Your task to perform on an android device: turn off smart reply in the gmail app Image 0: 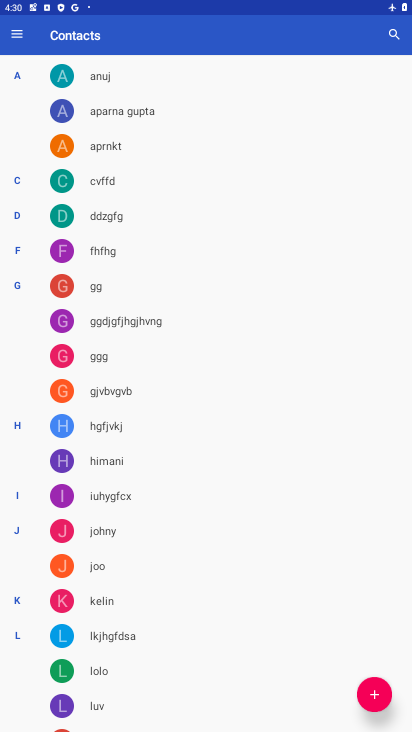
Step 0: press home button
Your task to perform on an android device: turn off smart reply in the gmail app Image 1: 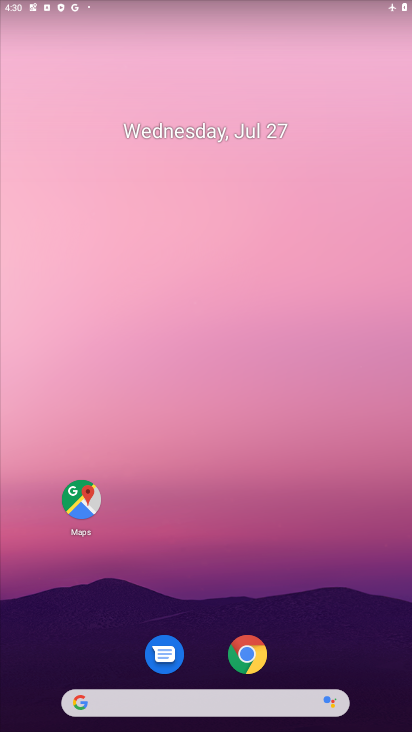
Step 1: drag from (192, 669) to (290, 328)
Your task to perform on an android device: turn off smart reply in the gmail app Image 2: 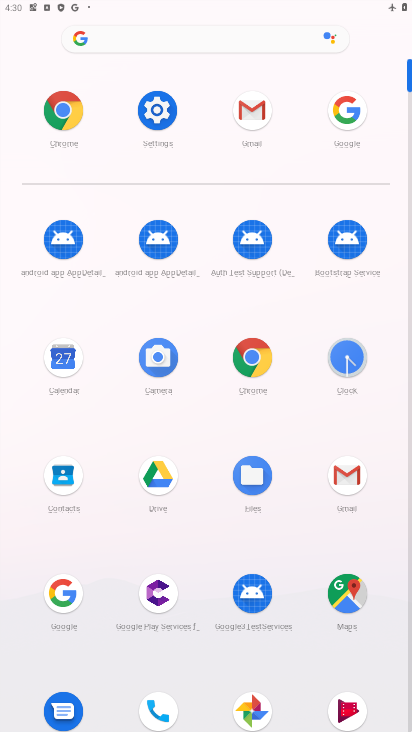
Step 2: click (249, 125)
Your task to perform on an android device: turn off smart reply in the gmail app Image 3: 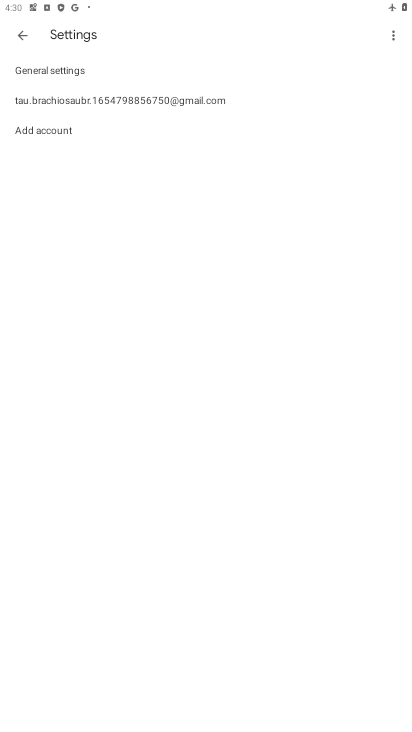
Step 3: click (70, 95)
Your task to perform on an android device: turn off smart reply in the gmail app Image 4: 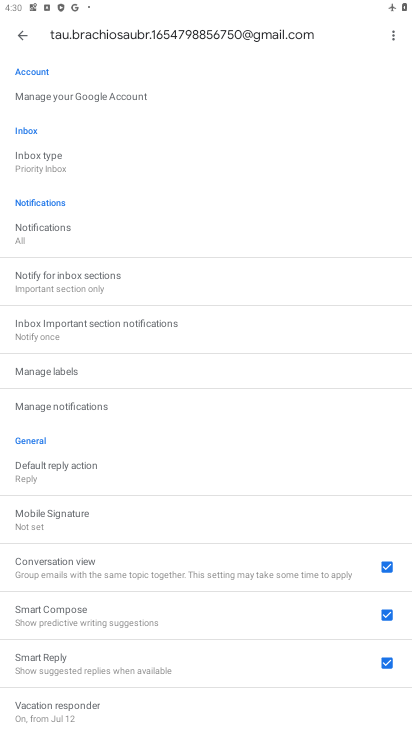
Step 4: drag from (157, 681) to (249, 306)
Your task to perform on an android device: turn off smart reply in the gmail app Image 5: 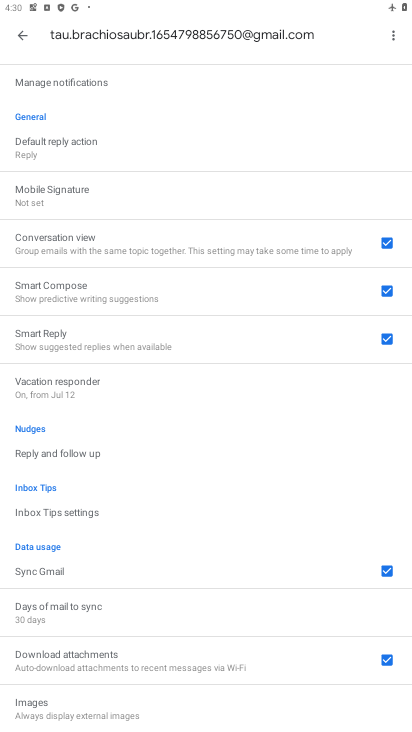
Step 5: click (386, 339)
Your task to perform on an android device: turn off smart reply in the gmail app Image 6: 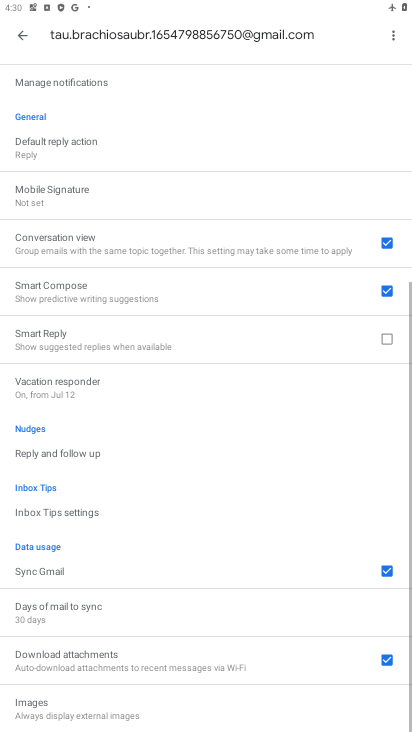
Step 6: task complete